Your task to perform on an android device: change the clock display to analog Image 0: 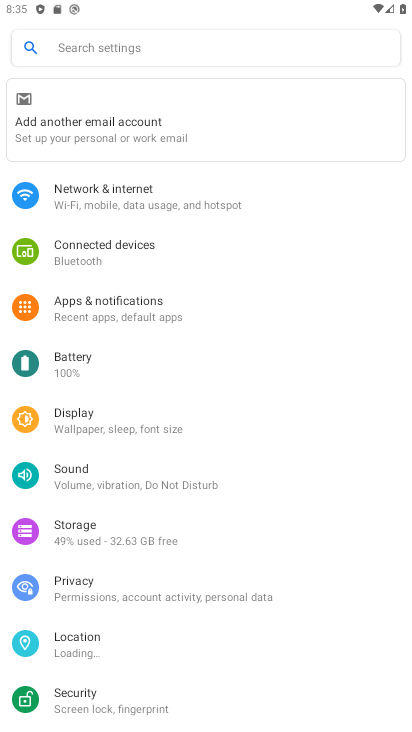
Step 0: press home button
Your task to perform on an android device: change the clock display to analog Image 1: 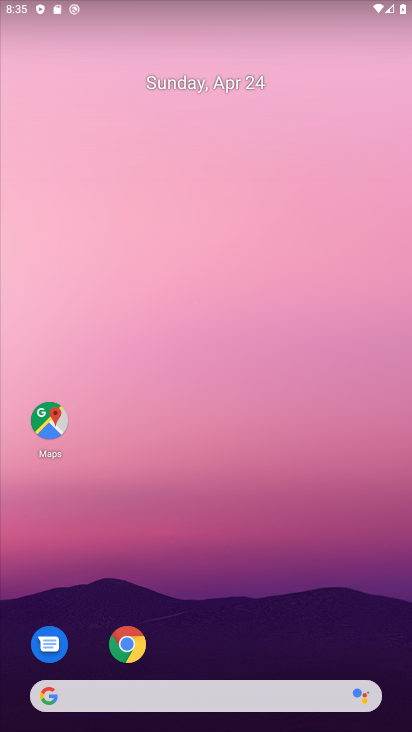
Step 1: drag from (173, 616) to (294, 3)
Your task to perform on an android device: change the clock display to analog Image 2: 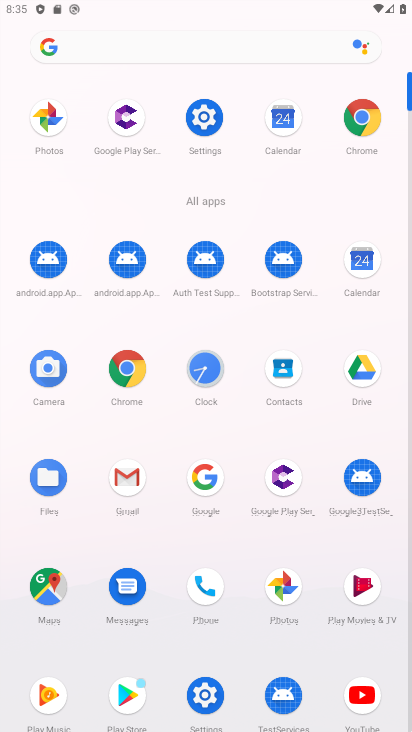
Step 2: click (225, 368)
Your task to perform on an android device: change the clock display to analog Image 3: 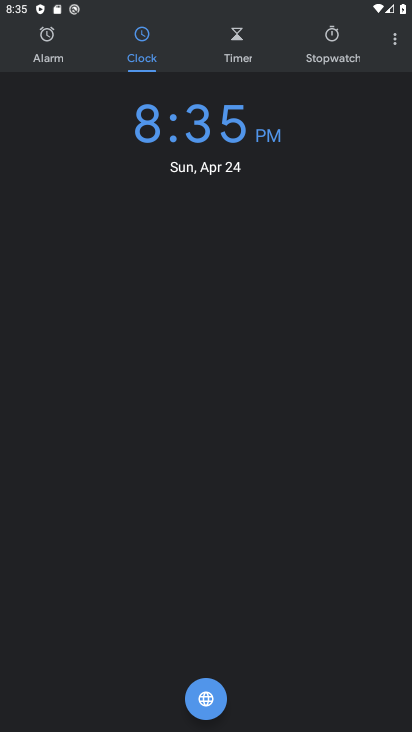
Step 3: click (403, 44)
Your task to perform on an android device: change the clock display to analog Image 4: 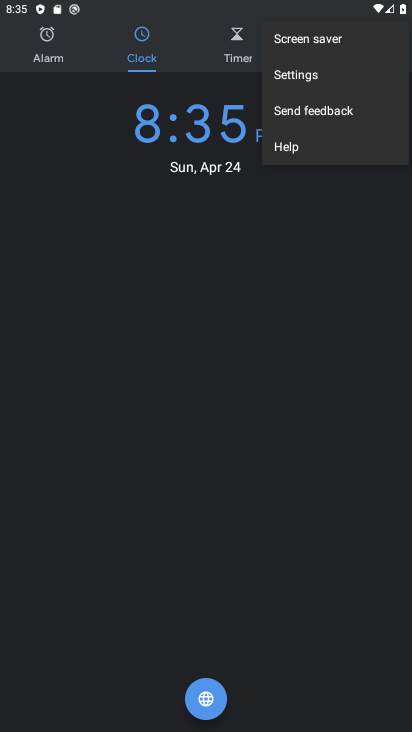
Step 4: click (378, 81)
Your task to perform on an android device: change the clock display to analog Image 5: 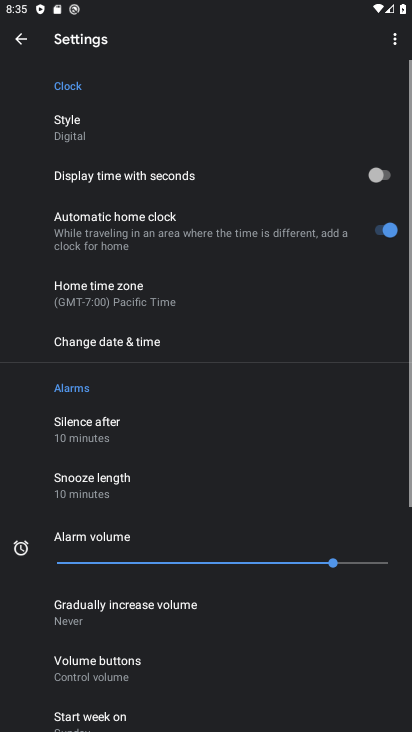
Step 5: click (171, 129)
Your task to perform on an android device: change the clock display to analog Image 6: 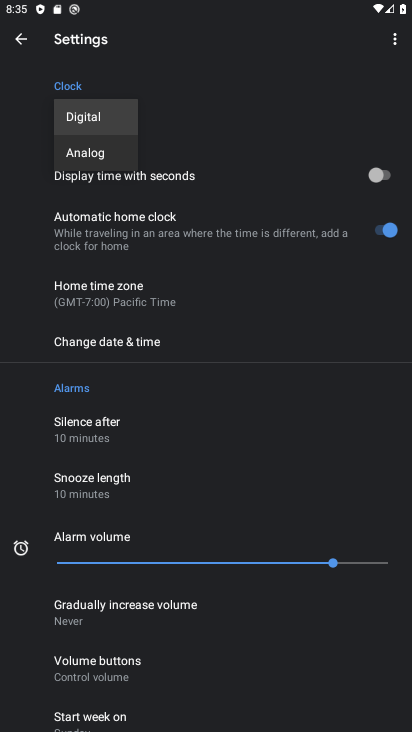
Step 6: click (96, 158)
Your task to perform on an android device: change the clock display to analog Image 7: 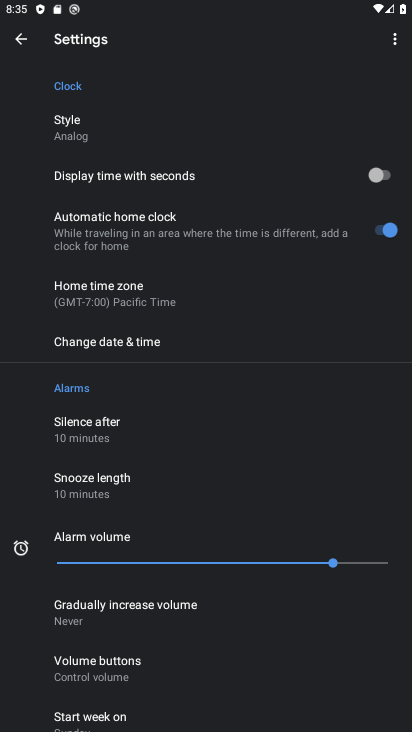
Step 7: task complete